Your task to perform on an android device: What is the news today? Image 0: 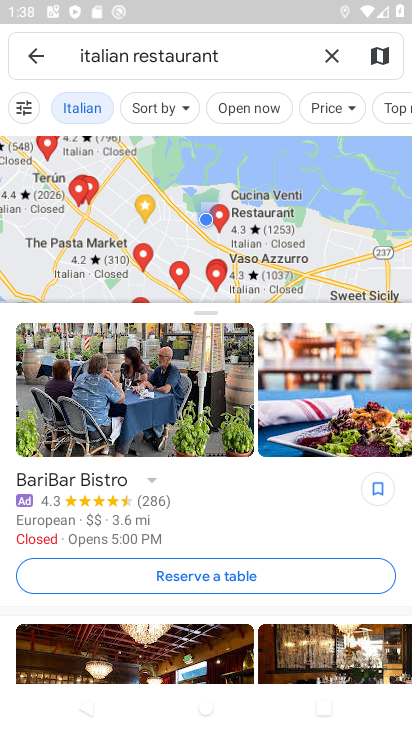
Step 0: press back button
Your task to perform on an android device: What is the news today? Image 1: 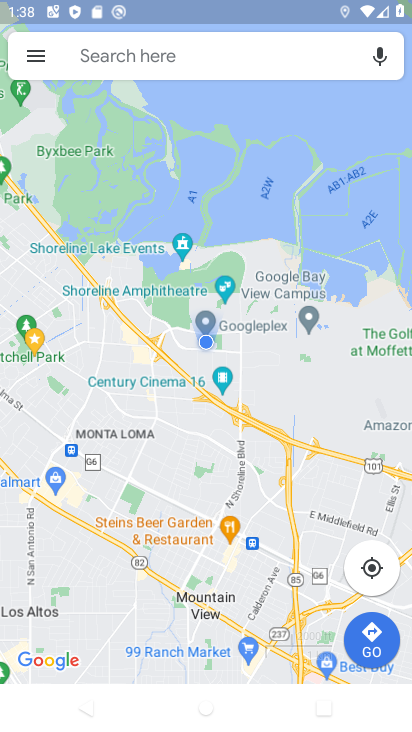
Step 1: press back button
Your task to perform on an android device: What is the news today? Image 2: 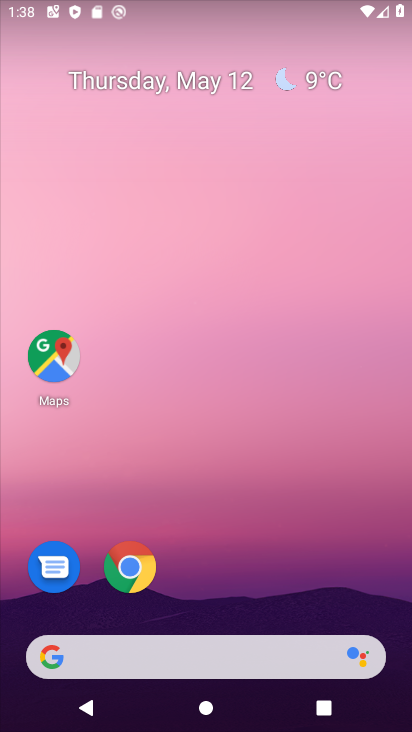
Step 2: drag from (249, 588) to (260, 142)
Your task to perform on an android device: What is the news today? Image 3: 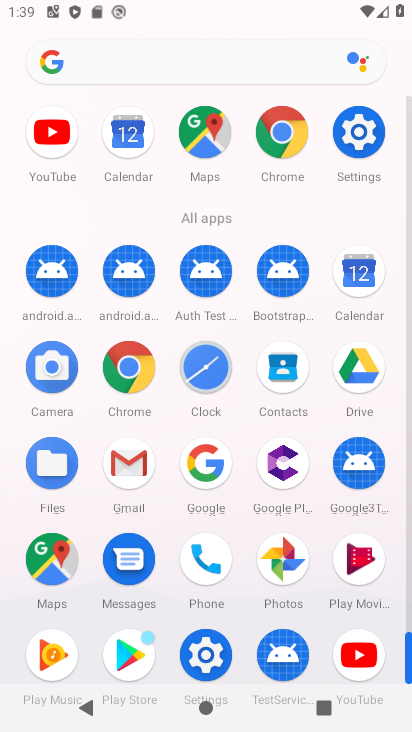
Step 3: click (195, 509)
Your task to perform on an android device: What is the news today? Image 4: 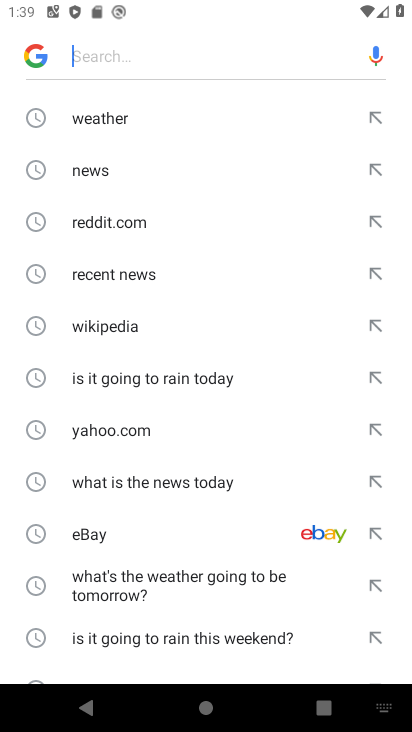
Step 4: click (83, 172)
Your task to perform on an android device: What is the news today? Image 5: 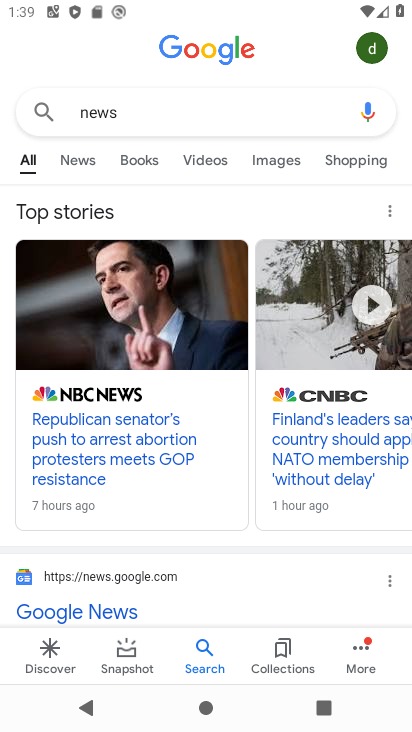
Step 5: task complete